Your task to perform on an android device: turn vacation reply on in the gmail app Image 0: 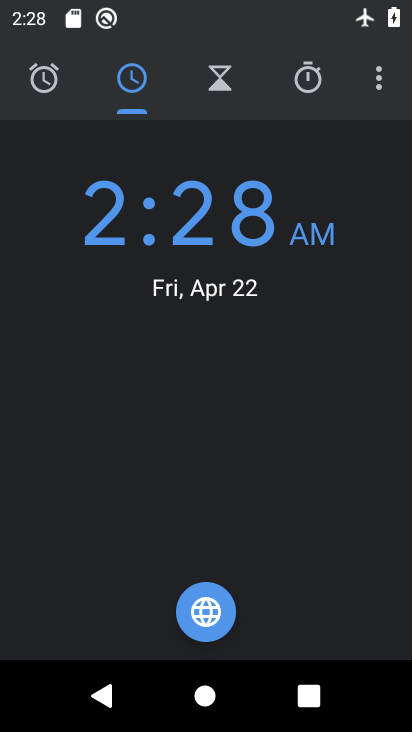
Step 0: press home button
Your task to perform on an android device: turn vacation reply on in the gmail app Image 1: 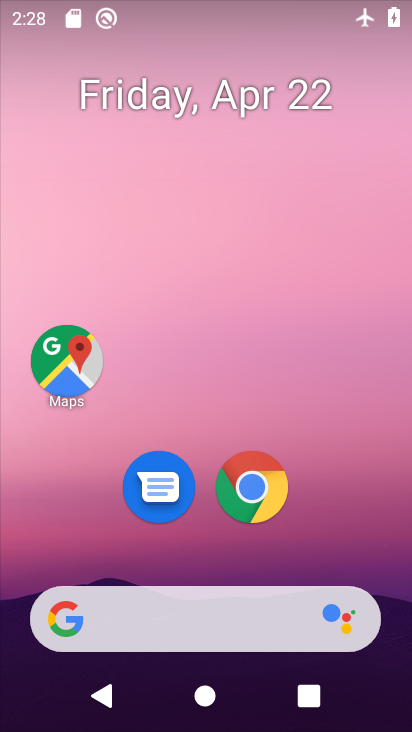
Step 1: drag from (263, 562) to (290, 214)
Your task to perform on an android device: turn vacation reply on in the gmail app Image 2: 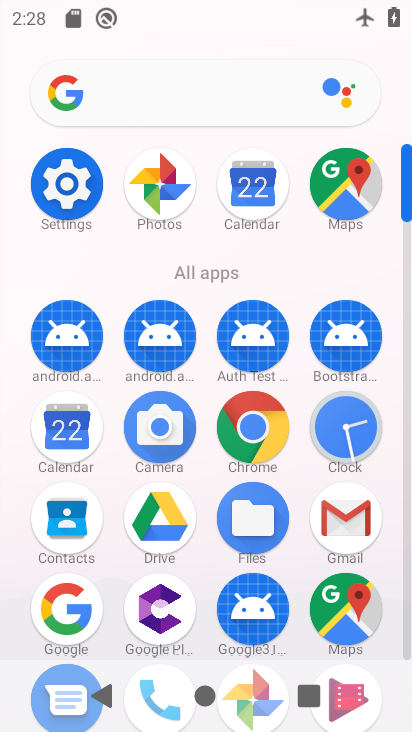
Step 2: click (329, 531)
Your task to perform on an android device: turn vacation reply on in the gmail app Image 3: 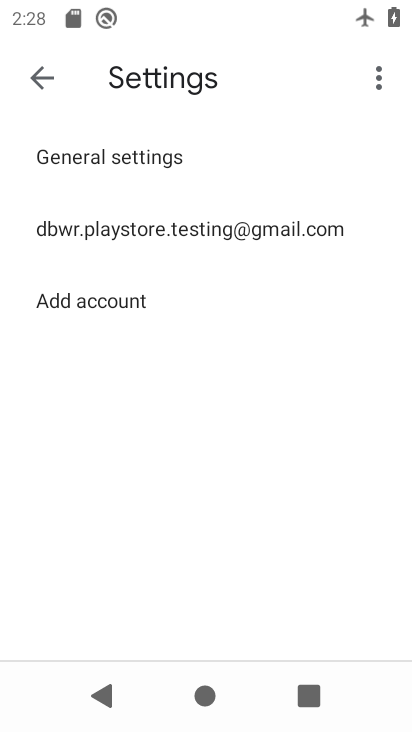
Step 3: click (31, 90)
Your task to perform on an android device: turn vacation reply on in the gmail app Image 4: 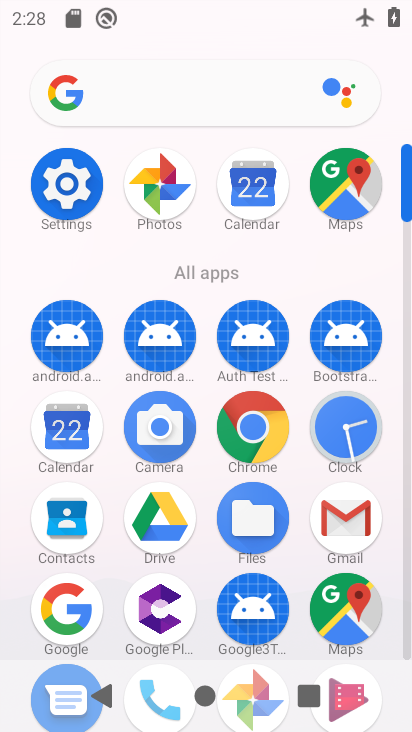
Step 4: click (331, 533)
Your task to perform on an android device: turn vacation reply on in the gmail app Image 5: 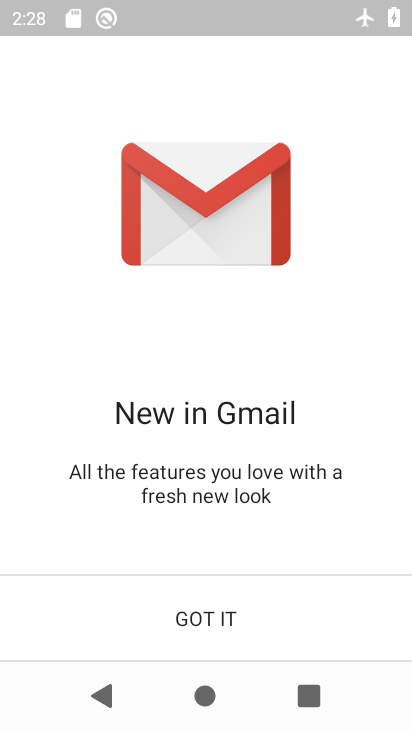
Step 5: click (237, 612)
Your task to perform on an android device: turn vacation reply on in the gmail app Image 6: 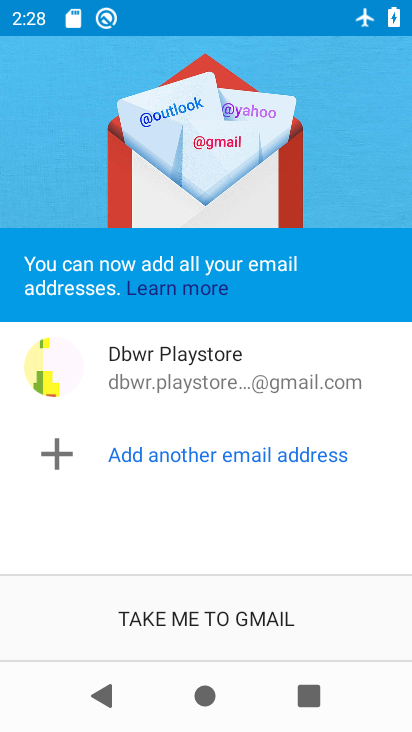
Step 6: click (237, 612)
Your task to perform on an android device: turn vacation reply on in the gmail app Image 7: 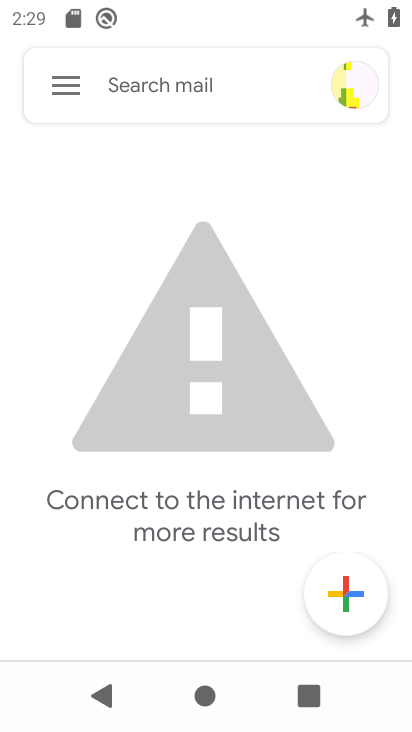
Step 7: click (80, 88)
Your task to perform on an android device: turn vacation reply on in the gmail app Image 8: 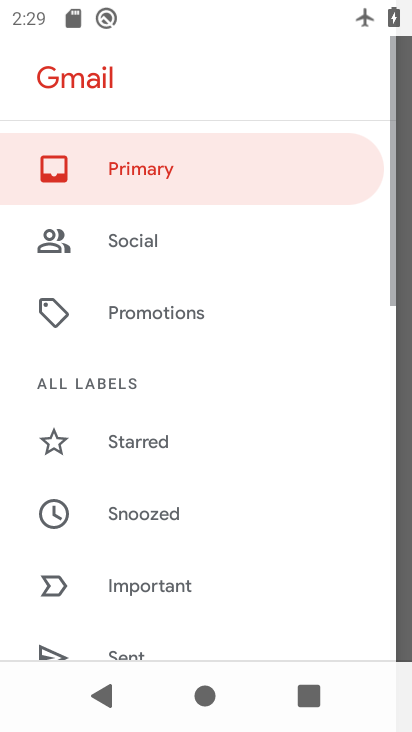
Step 8: drag from (134, 496) to (161, 123)
Your task to perform on an android device: turn vacation reply on in the gmail app Image 9: 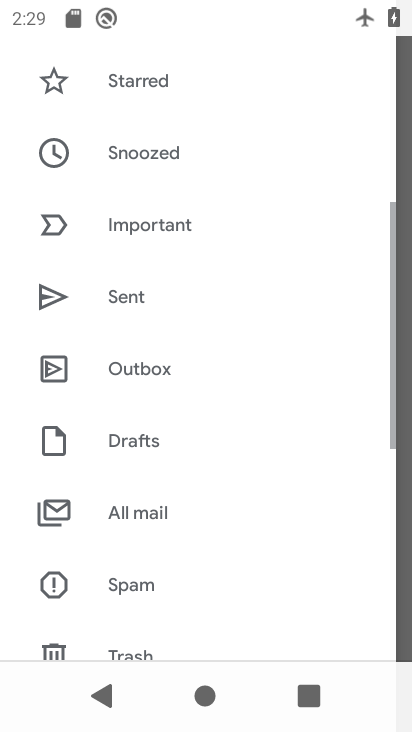
Step 9: drag from (92, 628) to (155, 341)
Your task to perform on an android device: turn vacation reply on in the gmail app Image 10: 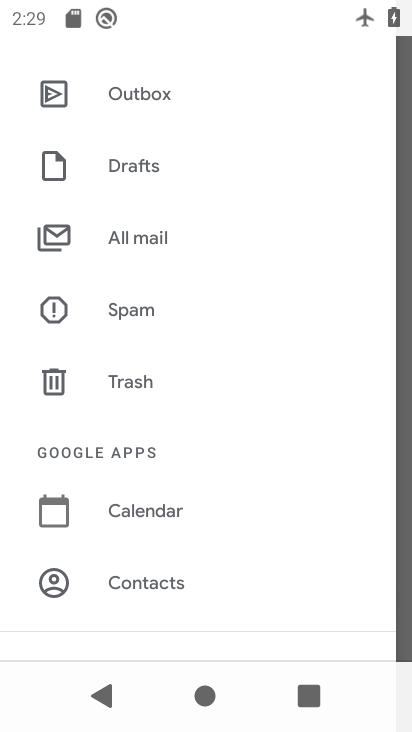
Step 10: drag from (165, 595) to (242, 205)
Your task to perform on an android device: turn vacation reply on in the gmail app Image 11: 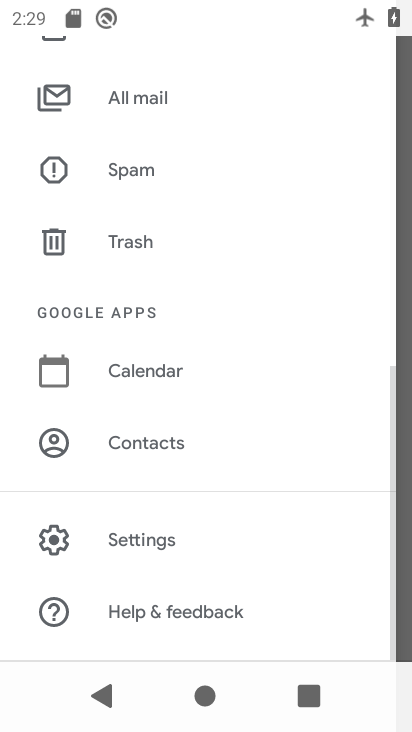
Step 11: click (178, 553)
Your task to perform on an android device: turn vacation reply on in the gmail app Image 12: 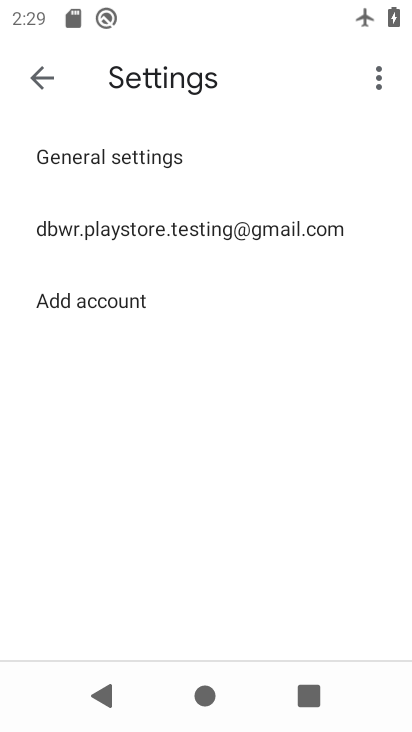
Step 12: click (143, 235)
Your task to perform on an android device: turn vacation reply on in the gmail app Image 13: 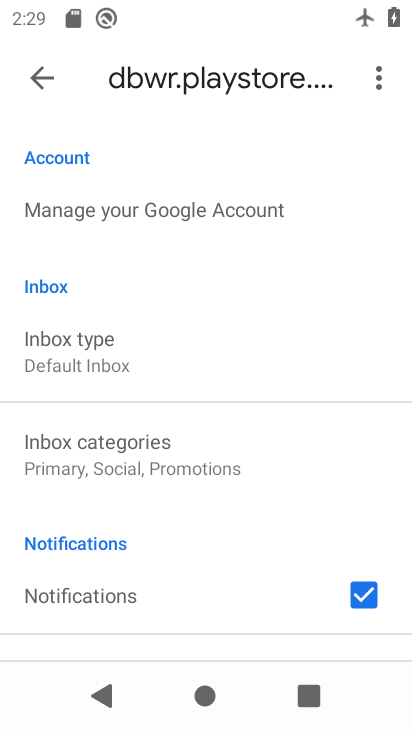
Step 13: drag from (211, 543) to (290, 226)
Your task to perform on an android device: turn vacation reply on in the gmail app Image 14: 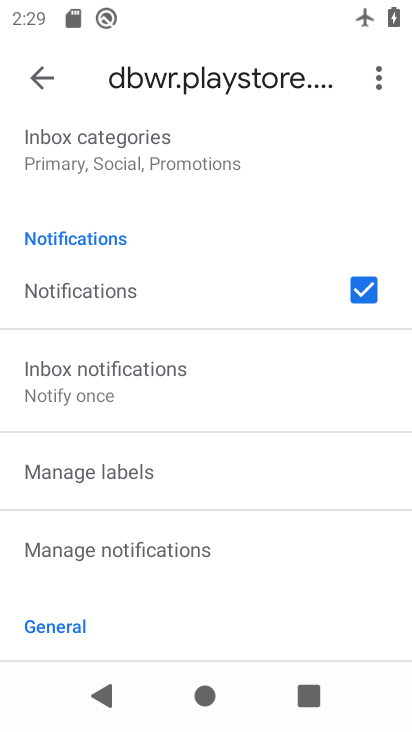
Step 14: drag from (222, 527) to (239, 204)
Your task to perform on an android device: turn vacation reply on in the gmail app Image 15: 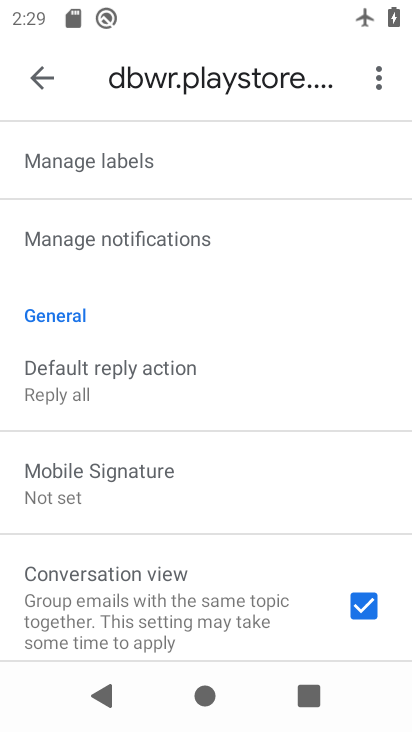
Step 15: drag from (221, 548) to (307, 183)
Your task to perform on an android device: turn vacation reply on in the gmail app Image 16: 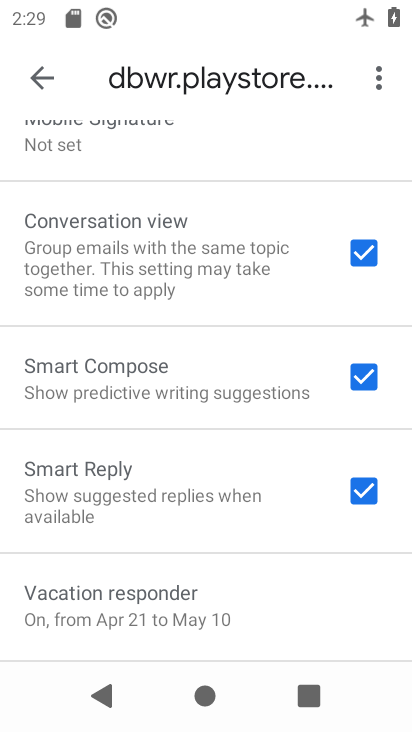
Step 16: click (209, 606)
Your task to perform on an android device: turn vacation reply on in the gmail app Image 17: 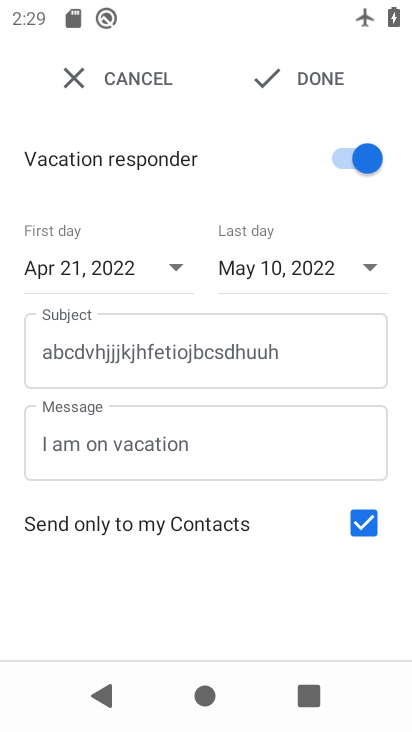
Step 17: click (327, 76)
Your task to perform on an android device: turn vacation reply on in the gmail app Image 18: 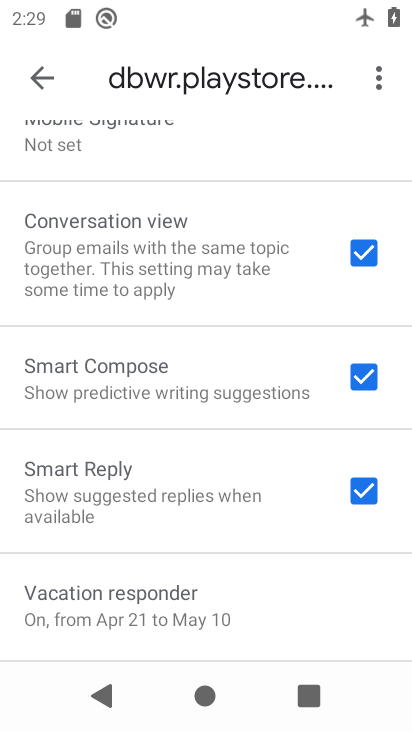
Step 18: task complete